Your task to perform on an android device: open app "Expedia: Hotels, Flights & Car" Image 0: 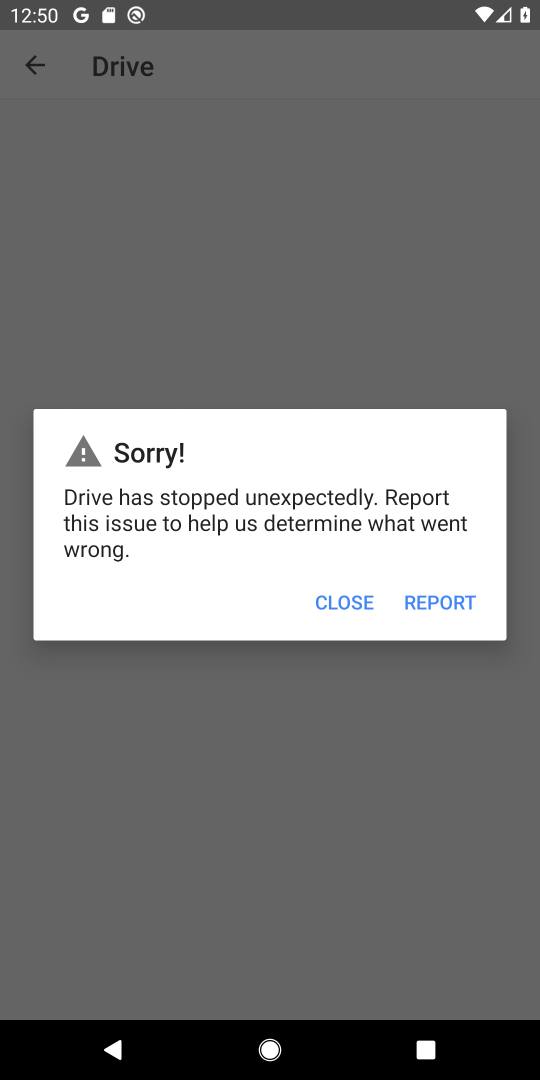
Step 0: press home button
Your task to perform on an android device: open app "Expedia: Hotels, Flights & Car" Image 1: 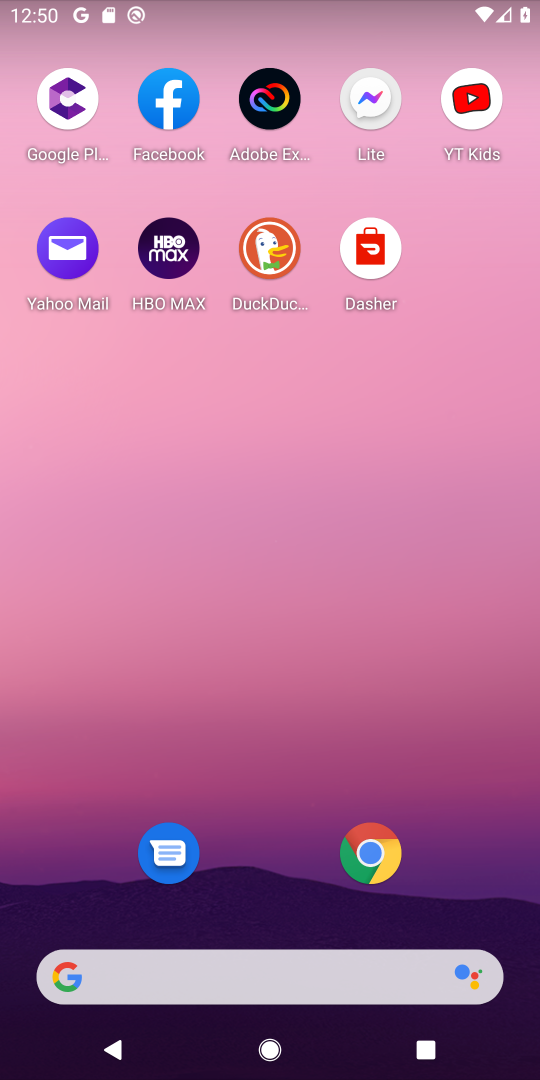
Step 1: drag from (442, 914) to (408, 95)
Your task to perform on an android device: open app "Expedia: Hotels, Flights & Car" Image 2: 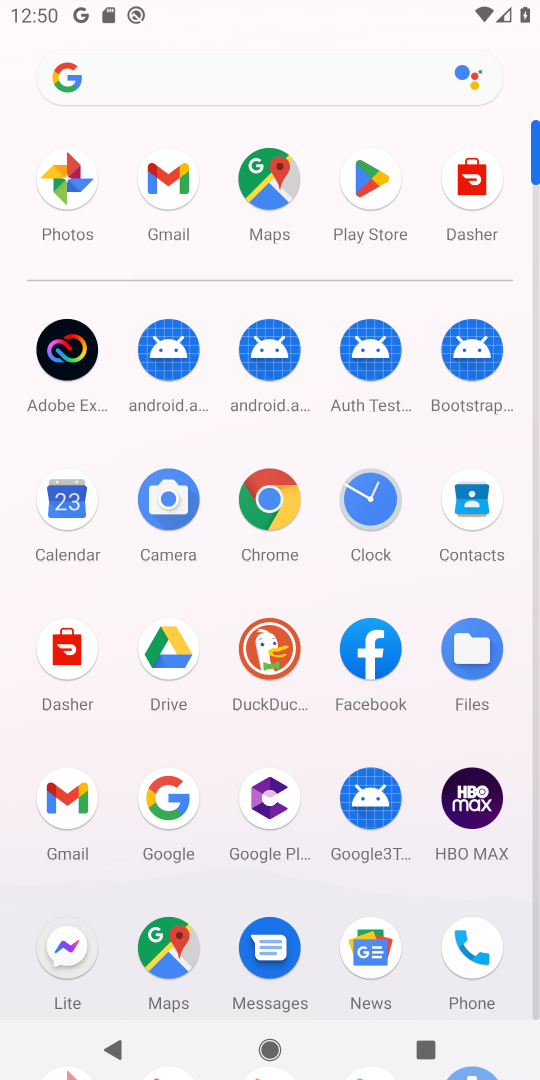
Step 2: drag from (318, 894) to (272, 279)
Your task to perform on an android device: open app "Expedia: Hotels, Flights & Car" Image 3: 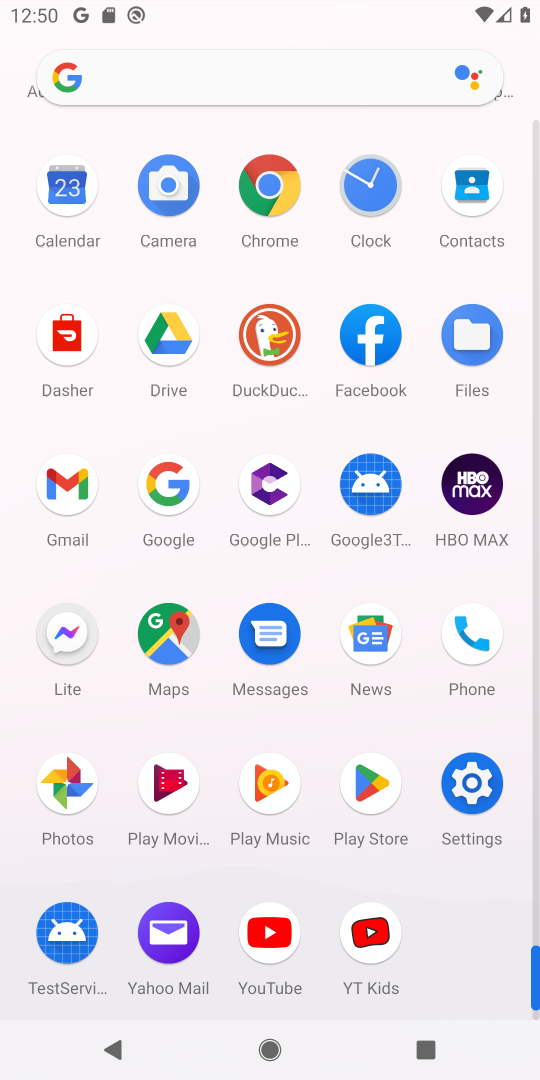
Step 3: click (378, 790)
Your task to perform on an android device: open app "Expedia: Hotels, Flights & Car" Image 4: 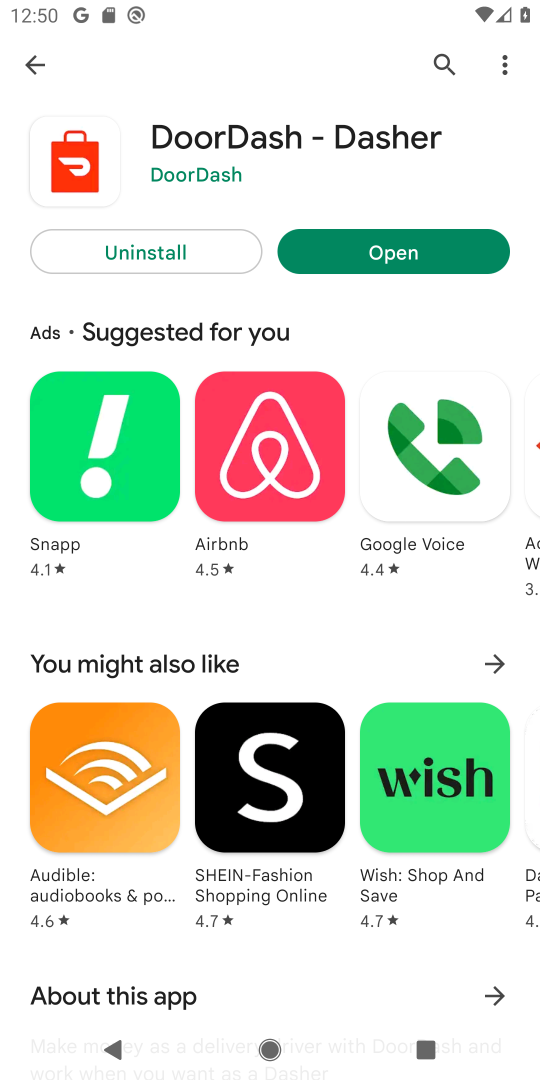
Step 4: click (441, 53)
Your task to perform on an android device: open app "Expedia: Hotels, Flights & Car" Image 5: 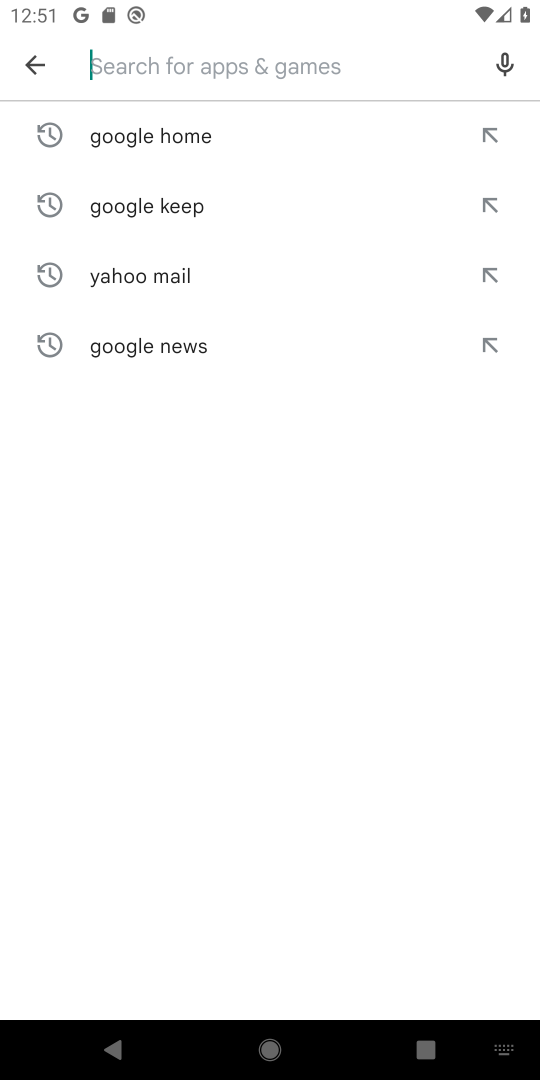
Step 5: type "Expedia: Hotels, Flights & Car"
Your task to perform on an android device: open app "Expedia: Hotels, Flights & Car" Image 6: 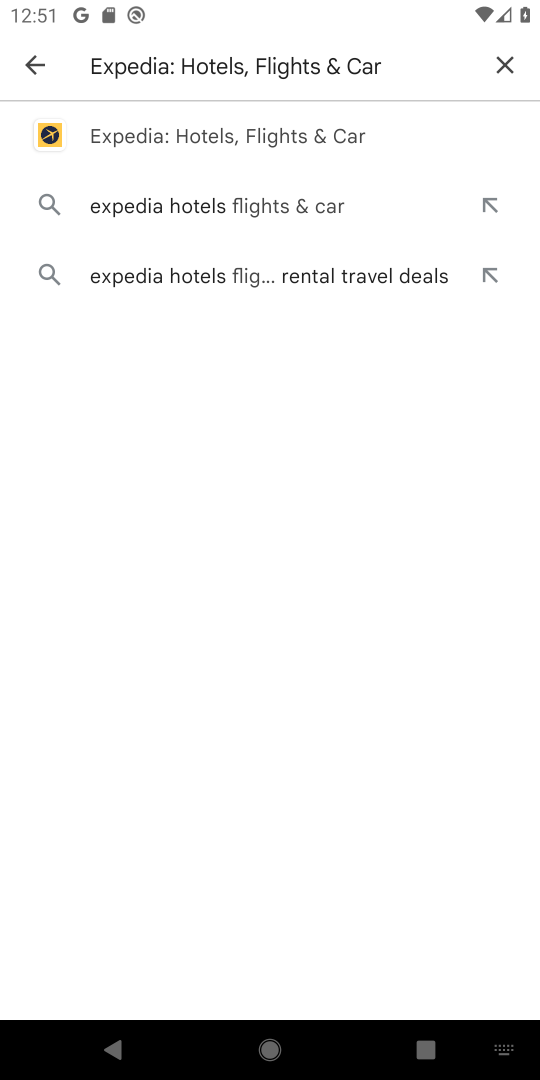
Step 6: click (154, 126)
Your task to perform on an android device: open app "Expedia: Hotels, Flights & Car" Image 7: 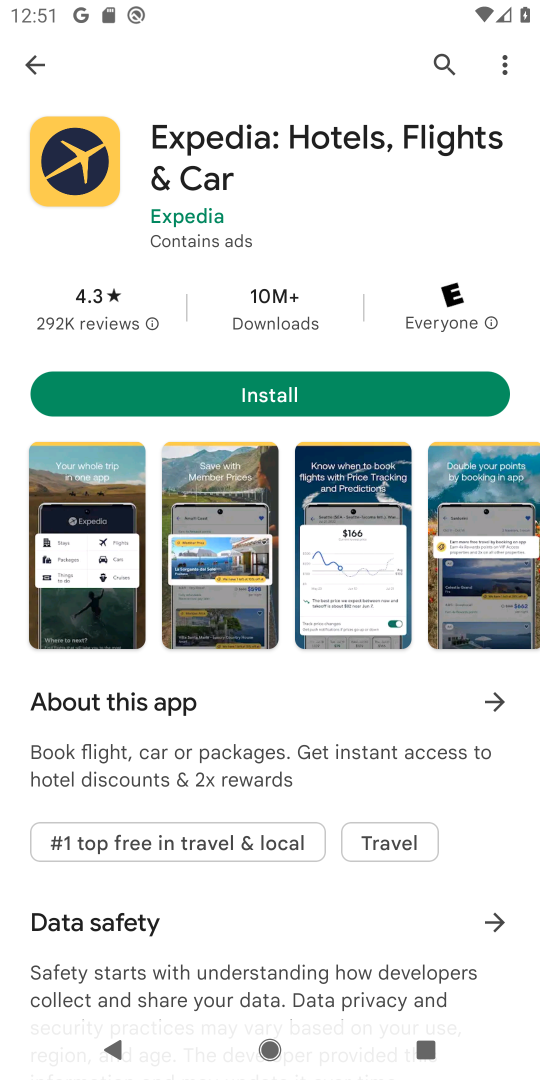
Step 7: task complete